Your task to perform on an android device: Open the calendar app, open the side menu, and click the "Day" option Image 0: 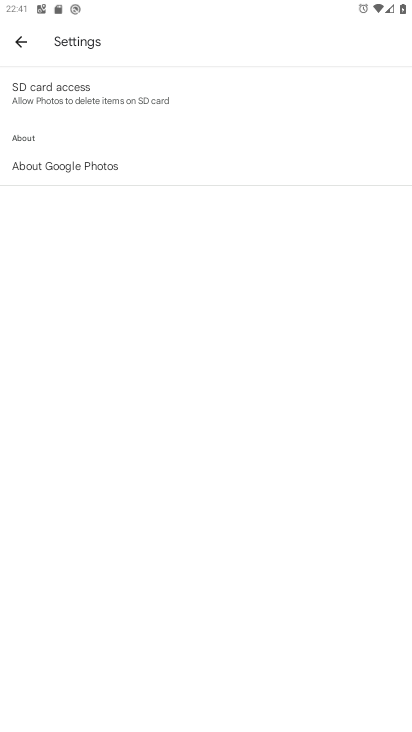
Step 0: press home button
Your task to perform on an android device: Open the calendar app, open the side menu, and click the "Day" option Image 1: 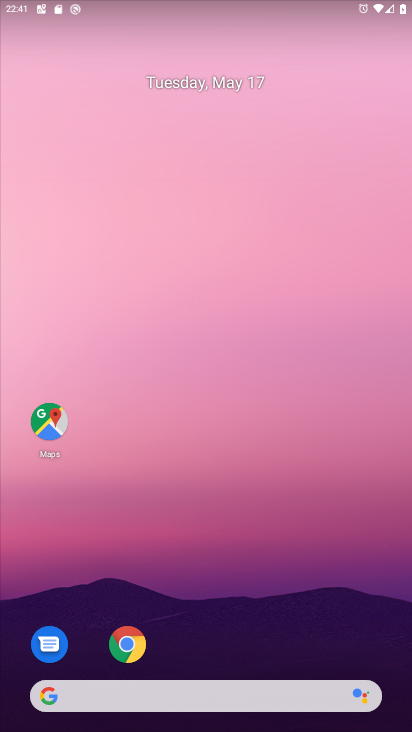
Step 1: drag from (201, 653) to (218, 80)
Your task to perform on an android device: Open the calendar app, open the side menu, and click the "Day" option Image 2: 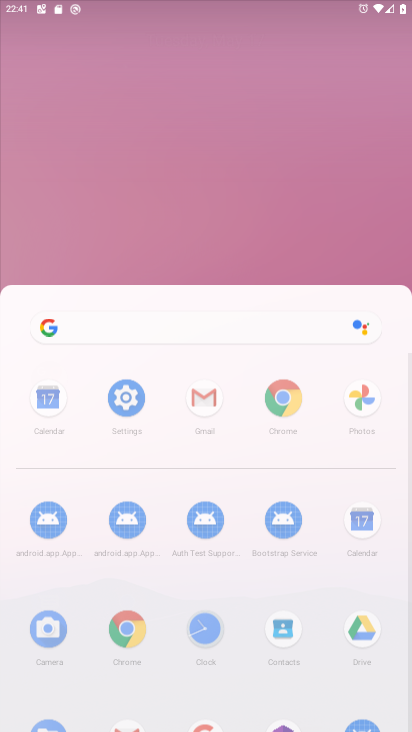
Step 2: click (215, 0)
Your task to perform on an android device: Open the calendar app, open the side menu, and click the "Day" option Image 3: 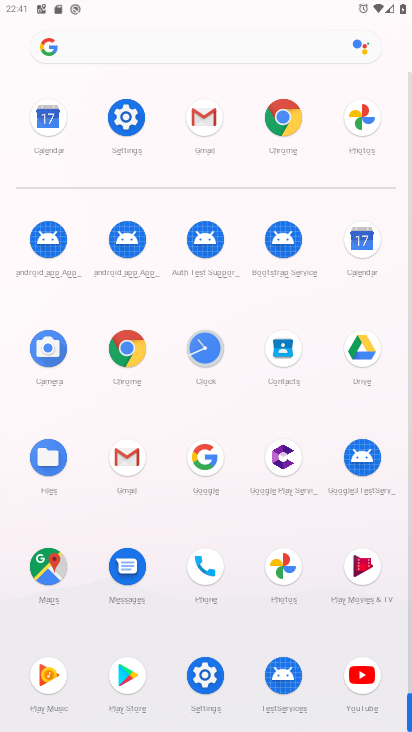
Step 3: click (43, 115)
Your task to perform on an android device: Open the calendar app, open the side menu, and click the "Day" option Image 4: 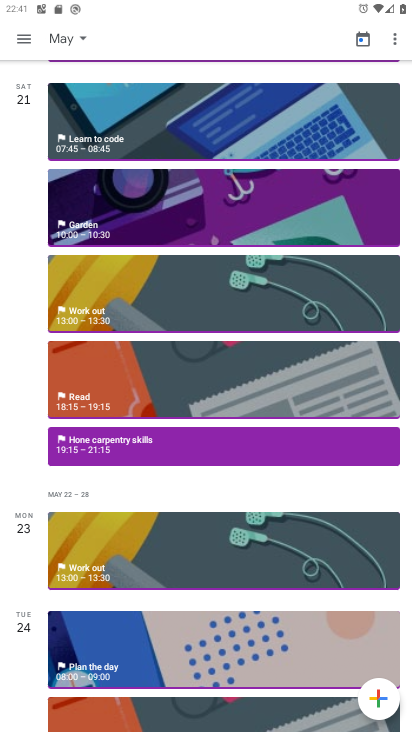
Step 4: click (27, 34)
Your task to perform on an android device: Open the calendar app, open the side menu, and click the "Day" option Image 5: 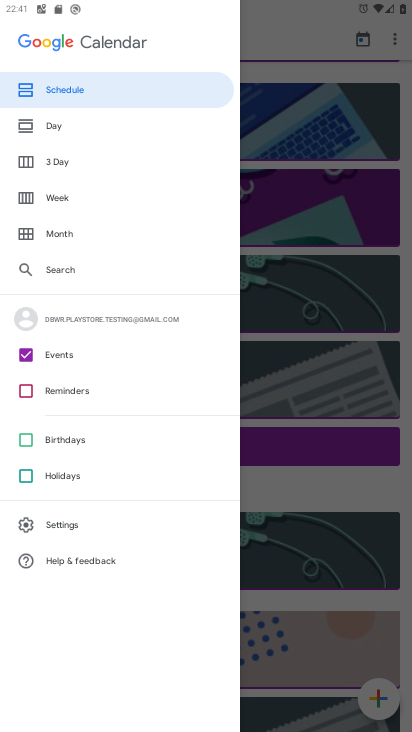
Step 5: click (57, 119)
Your task to perform on an android device: Open the calendar app, open the side menu, and click the "Day" option Image 6: 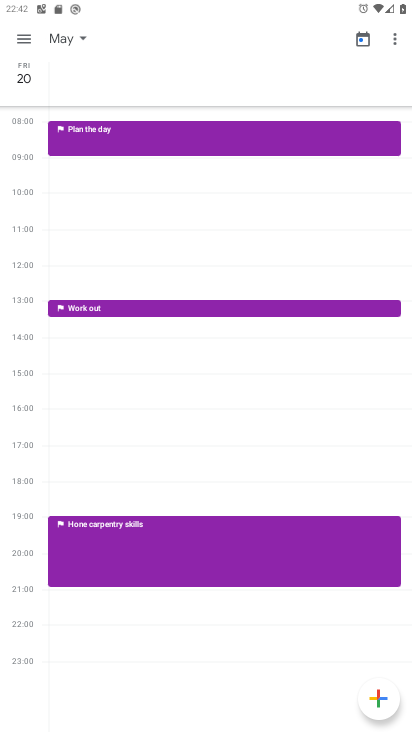
Step 6: click (28, 32)
Your task to perform on an android device: Open the calendar app, open the side menu, and click the "Day" option Image 7: 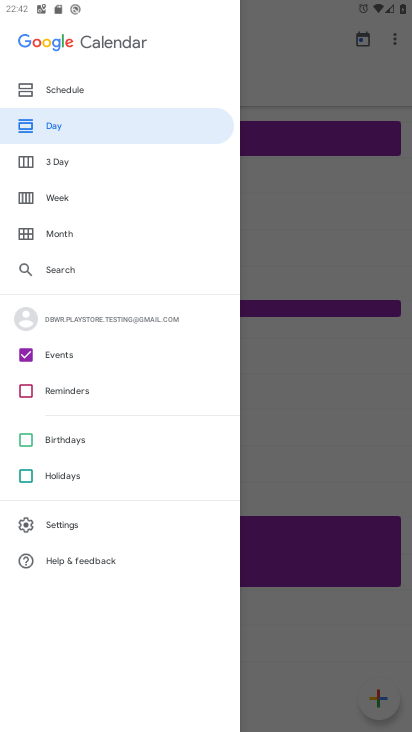
Step 7: click (59, 119)
Your task to perform on an android device: Open the calendar app, open the side menu, and click the "Day" option Image 8: 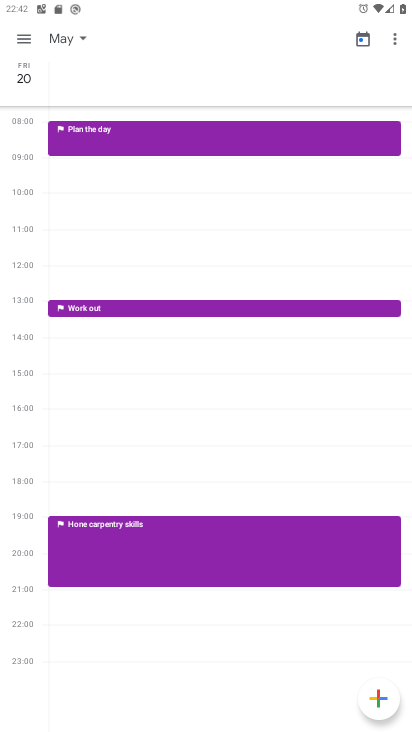
Step 8: task complete